Your task to perform on an android device: Open Google Chrome and open the bookmarks view Image 0: 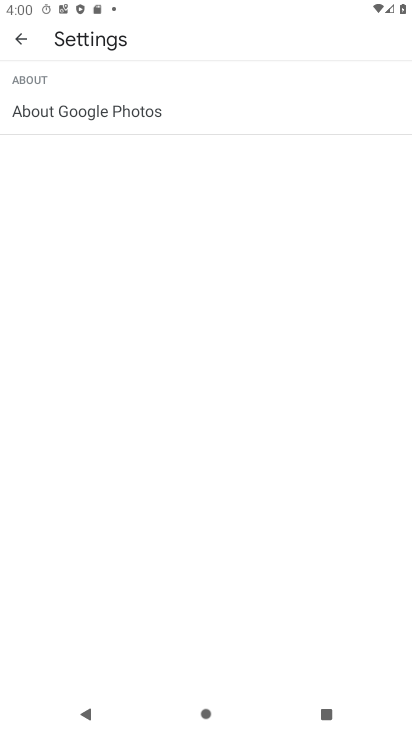
Step 0: press home button
Your task to perform on an android device: Open Google Chrome and open the bookmarks view Image 1: 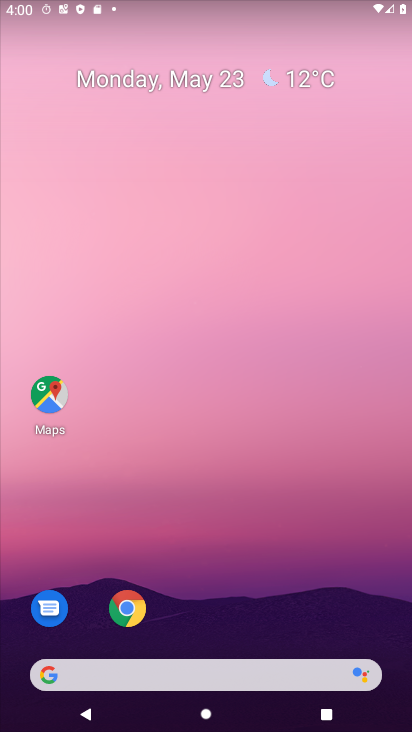
Step 1: click (125, 610)
Your task to perform on an android device: Open Google Chrome and open the bookmarks view Image 2: 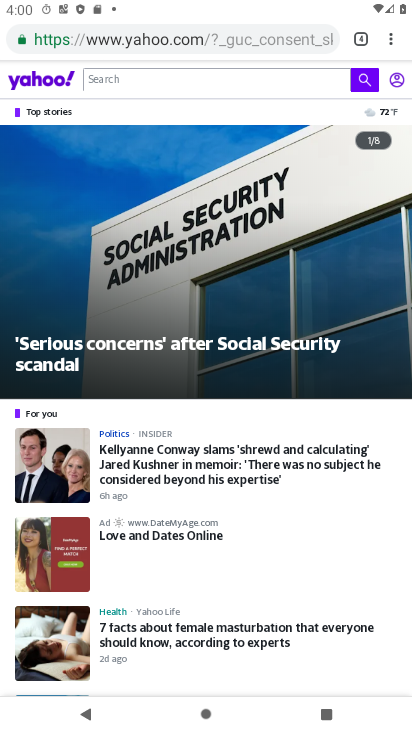
Step 2: click (390, 41)
Your task to perform on an android device: Open Google Chrome and open the bookmarks view Image 3: 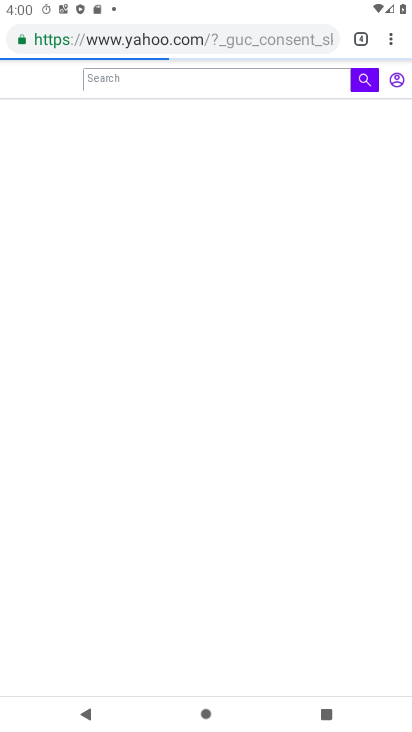
Step 3: click (388, 36)
Your task to perform on an android device: Open Google Chrome and open the bookmarks view Image 4: 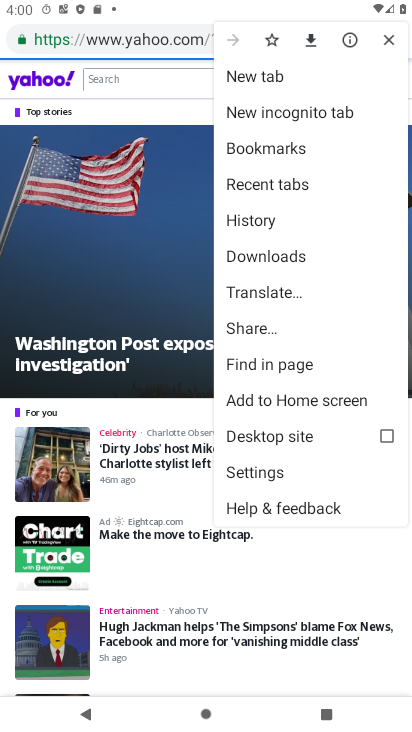
Step 4: click (273, 156)
Your task to perform on an android device: Open Google Chrome and open the bookmarks view Image 5: 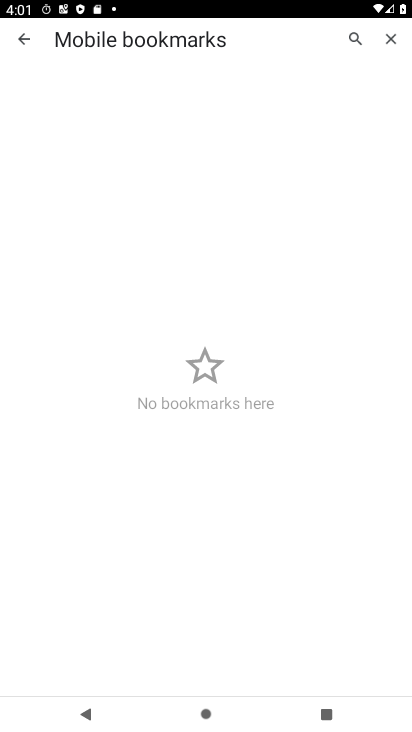
Step 5: task complete